Your task to perform on an android device: turn off location Image 0: 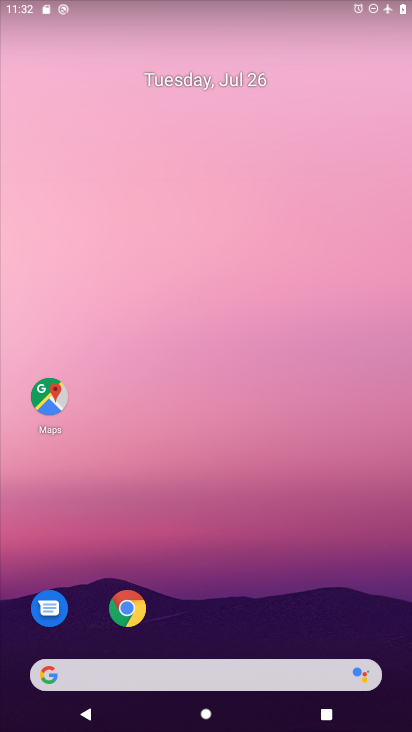
Step 0: drag from (290, 605) to (255, 72)
Your task to perform on an android device: turn off location Image 1: 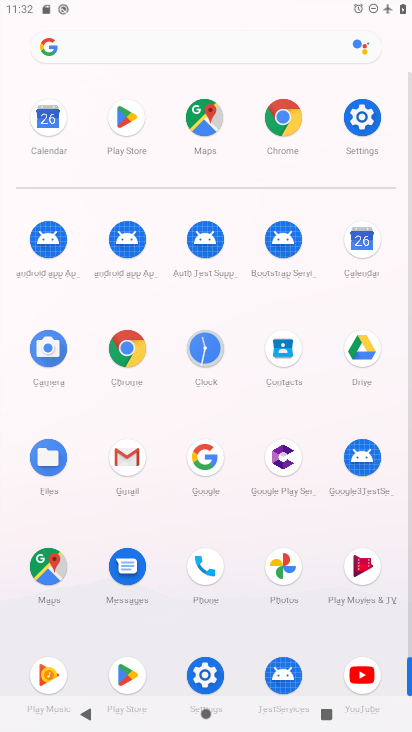
Step 1: click (371, 117)
Your task to perform on an android device: turn off location Image 2: 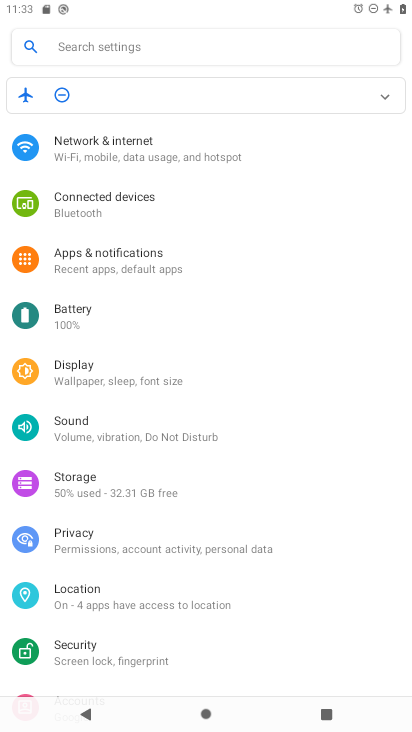
Step 2: click (100, 587)
Your task to perform on an android device: turn off location Image 3: 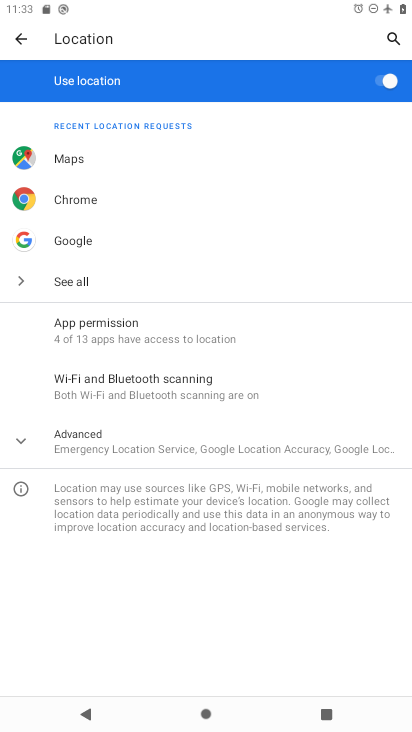
Step 3: click (377, 79)
Your task to perform on an android device: turn off location Image 4: 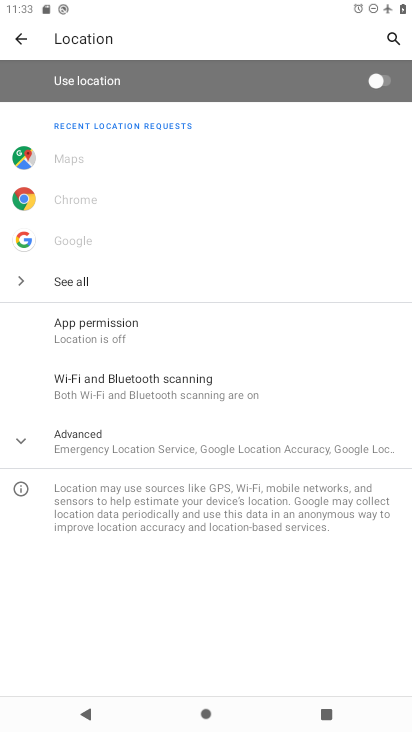
Step 4: task complete